Your task to perform on an android device: open a bookmark in the chrome app Image 0: 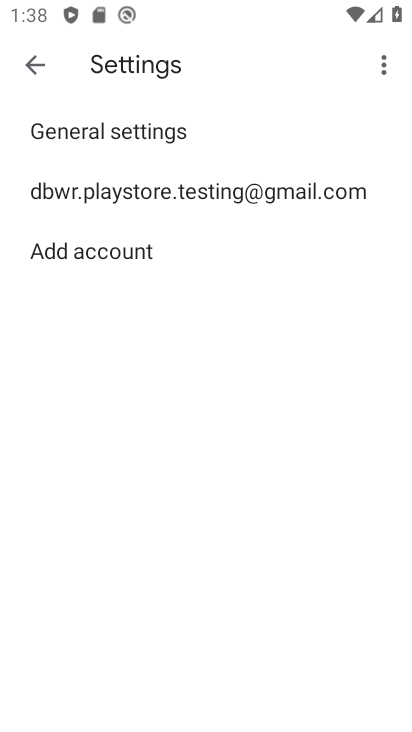
Step 0: press back button
Your task to perform on an android device: open a bookmark in the chrome app Image 1: 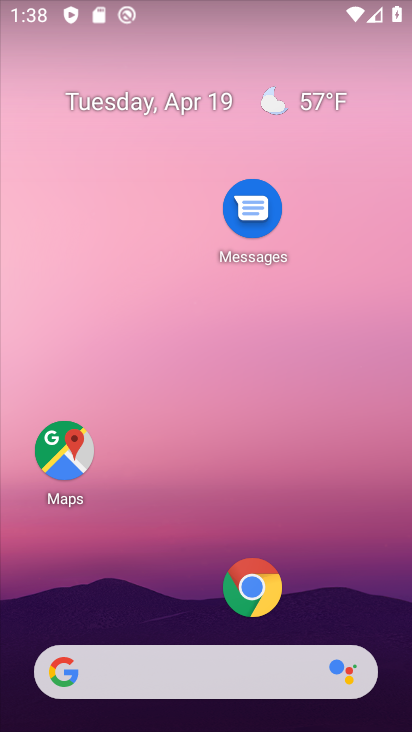
Step 1: click (248, 599)
Your task to perform on an android device: open a bookmark in the chrome app Image 2: 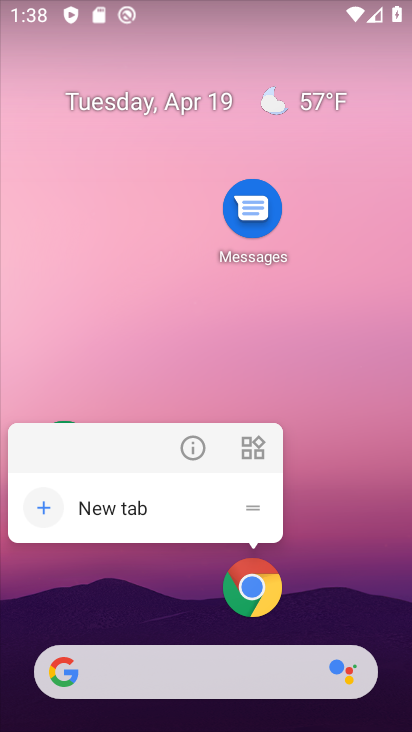
Step 2: click (262, 573)
Your task to perform on an android device: open a bookmark in the chrome app Image 3: 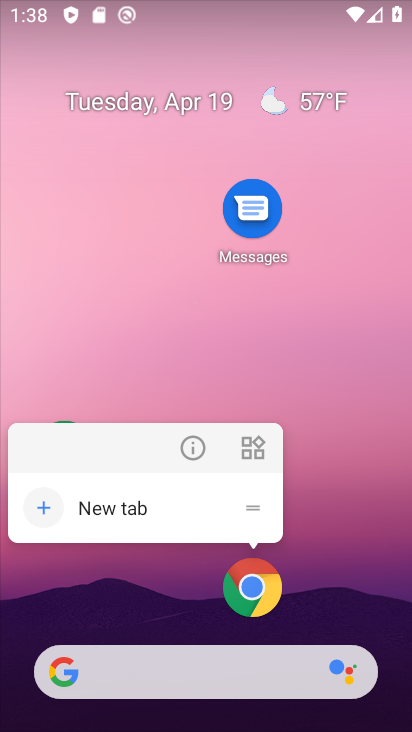
Step 3: click (257, 590)
Your task to perform on an android device: open a bookmark in the chrome app Image 4: 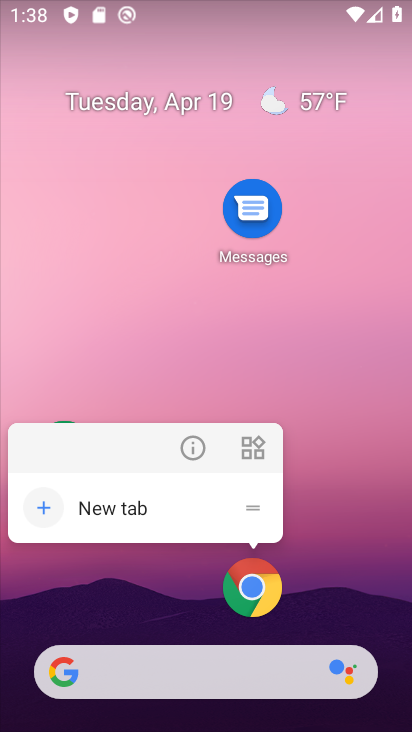
Step 4: click (257, 597)
Your task to perform on an android device: open a bookmark in the chrome app Image 5: 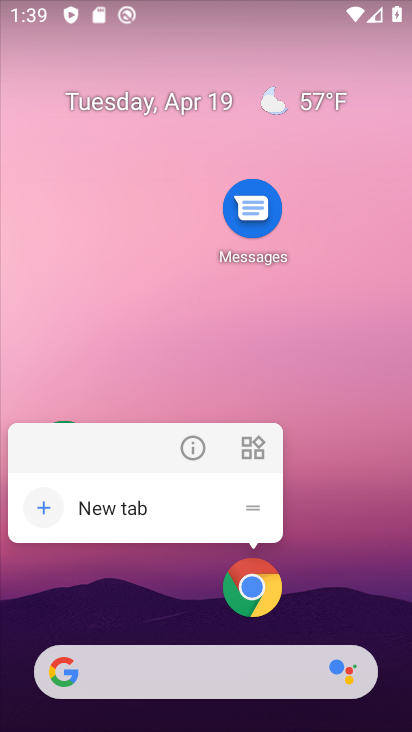
Step 5: click (254, 595)
Your task to perform on an android device: open a bookmark in the chrome app Image 6: 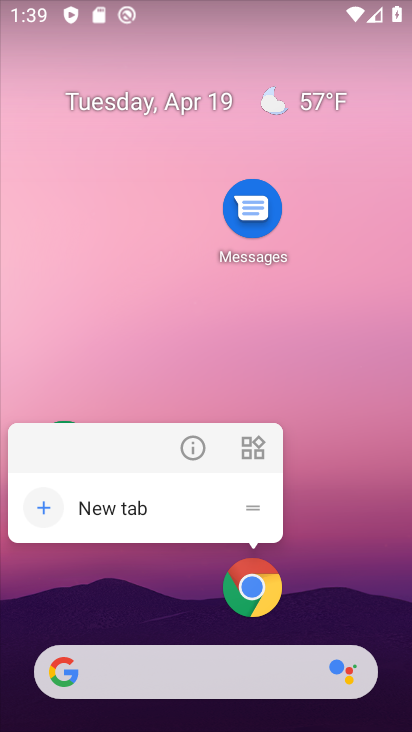
Step 6: click (254, 593)
Your task to perform on an android device: open a bookmark in the chrome app Image 7: 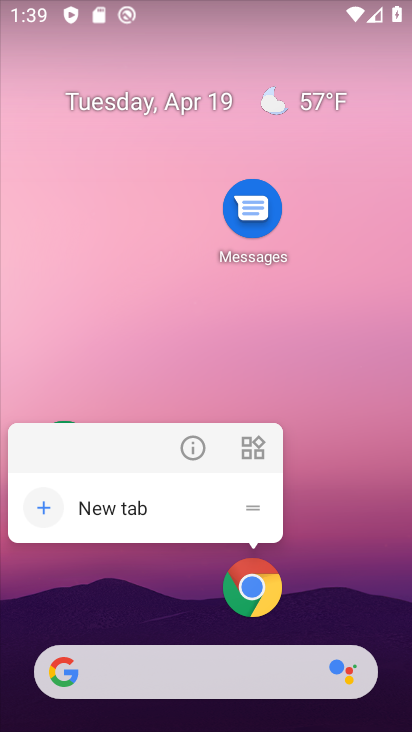
Step 7: click (254, 594)
Your task to perform on an android device: open a bookmark in the chrome app Image 8: 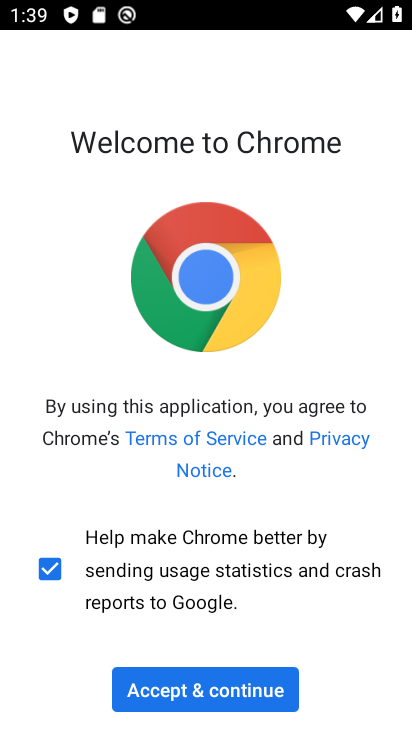
Step 8: click (246, 694)
Your task to perform on an android device: open a bookmark in the chrome app Image 9: 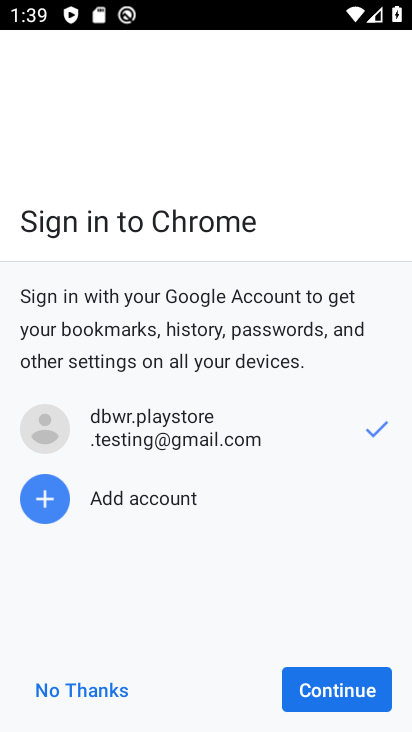
Step 9: click (391, 693)
Your task to perform on an android device: open a bookmark in the chrome app Image 10: 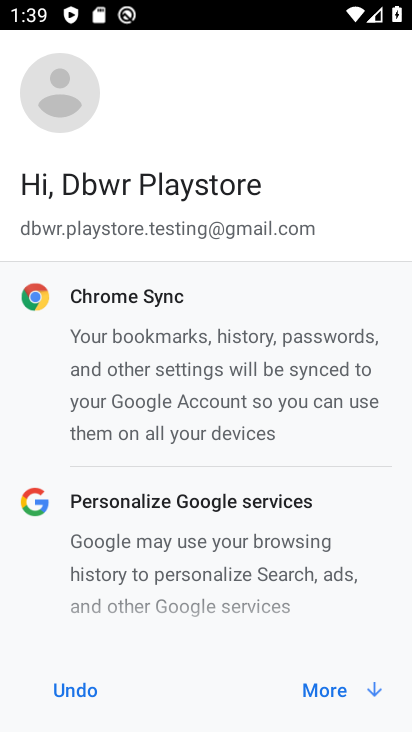
Step 10: click (351, 694)
Your task to perform on an android device: open a bookmark in the chrome app Image 11: 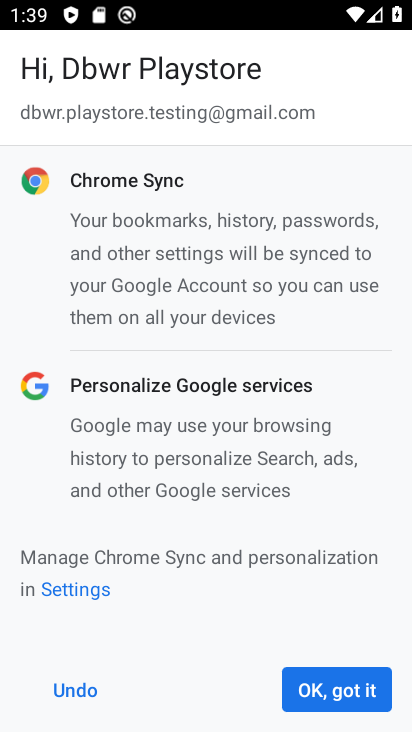
Step 11: click (351, 694)
Your task to perform on an android device: open a bookmark in the chrome app Image 12: 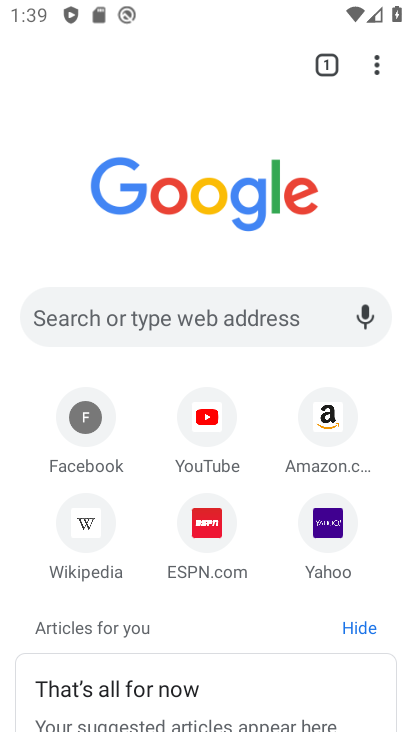
Step 12: click (376, 71)
Your task to perform on an android device: open a bookmark in the chrome app Image 13: 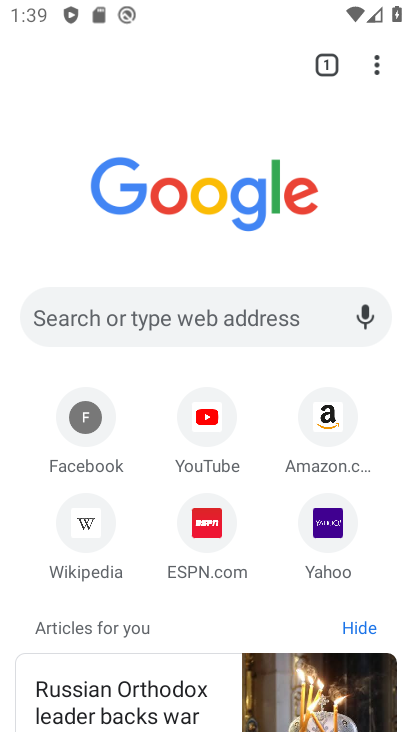
Step 13: task complete